Your task to perform on an android device: What is the news today? Image 0: 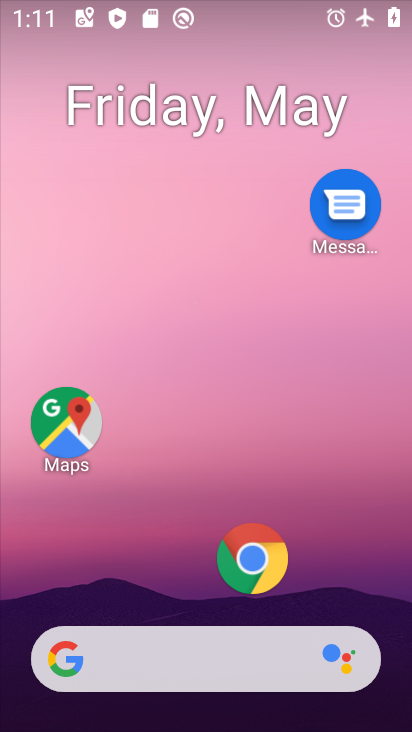
Step 0: drag from (252, 622) to (215, 299)
Your task to perform on an android device: What is the news today? Image 1: 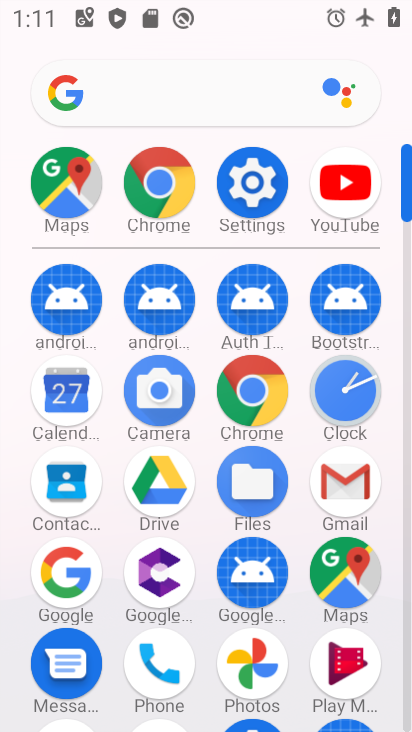
Step 1: click (71, 571)
Your task to perform on an android device: What is the news today? Image 2: 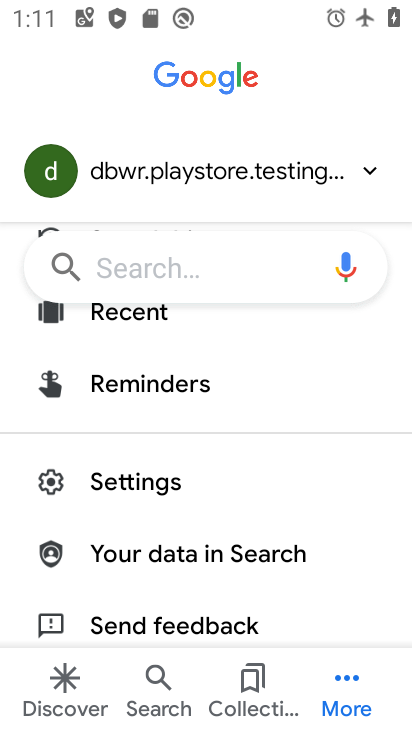
Step 2: click (80, 692)
Your task to perform on an android device: What is the news today? Image 3: 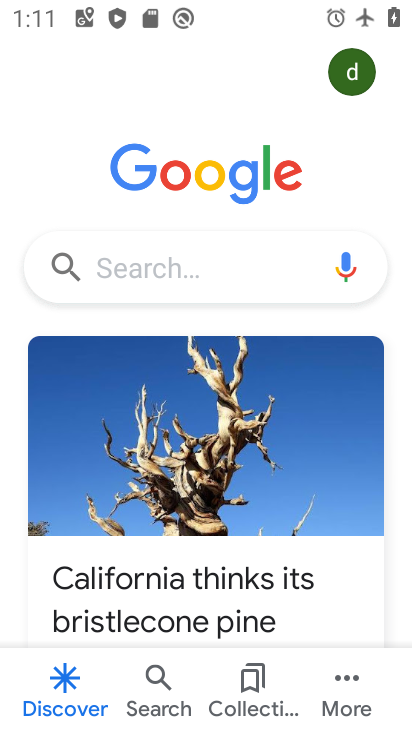
Step 3: click (197, 268)
Your task to perform on an android device: What is the news today? Image 4: 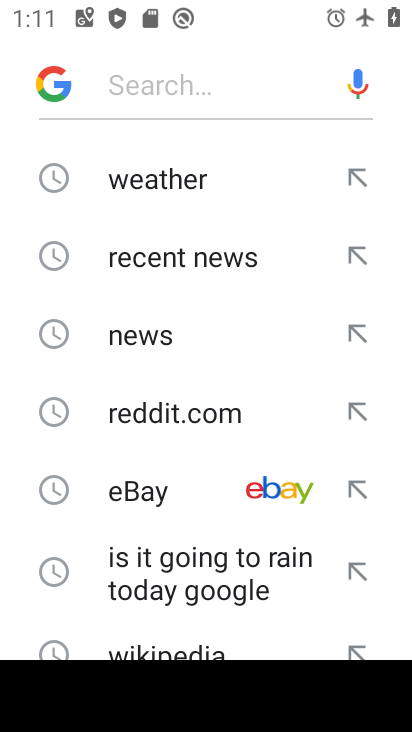
Step 4: click (195, 336)
Your task to perform on an android device: What is the news today? Image 5: 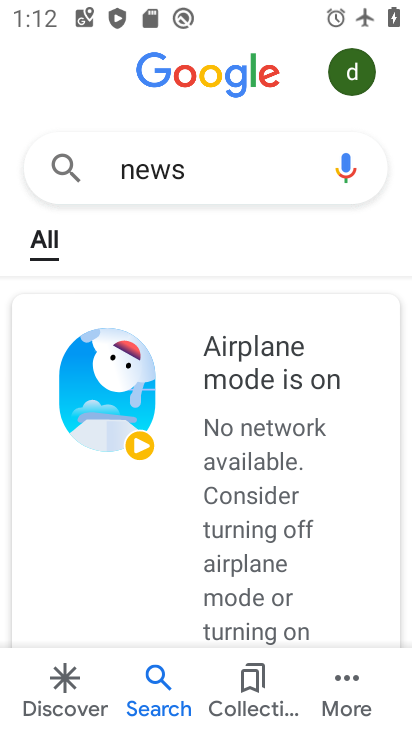
Step 5: task complete